Your task to perform on an android device: open a bookmark in the chrome app Image 0: 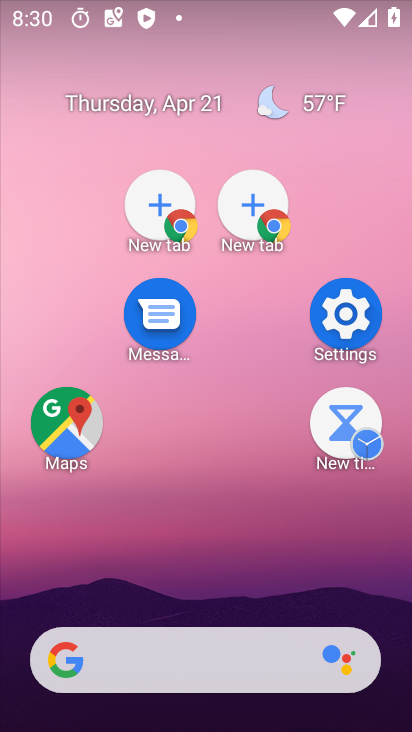
Step 0: drag from (287, 674) to (152, 298)
Your task to perform on an android device: open a bookmark in the chrome app Image 1: 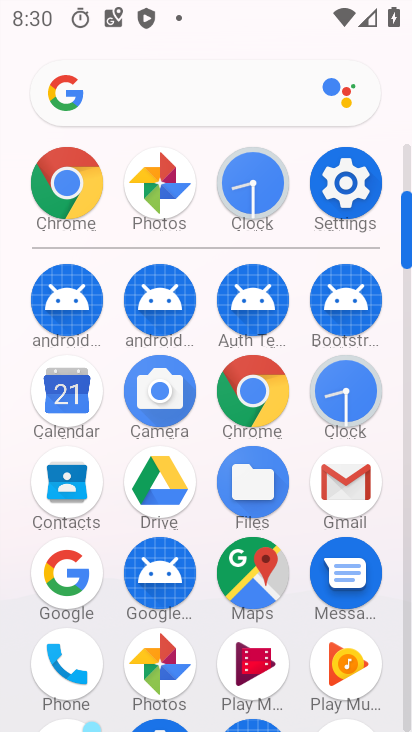
Step 1: click (69, 177)
Your task to perform on an android device: open a bookmark in the chrome app Image 2: 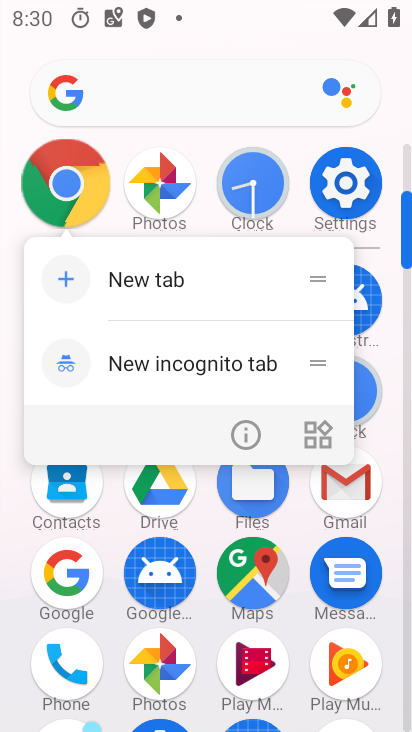
Step 2: click (74, 182)
Your task to perform on an android device: open a bookmark in the chrome app Image 3: 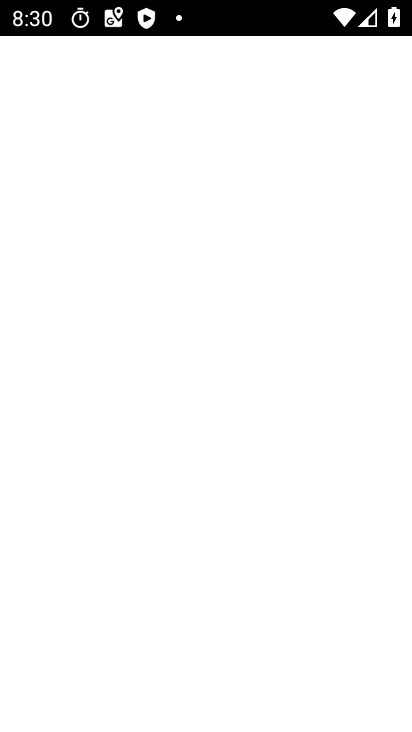
Step 3: click (78, 183)
Your task to perform on an android device: open a bookmark in the chrome app Image 4: 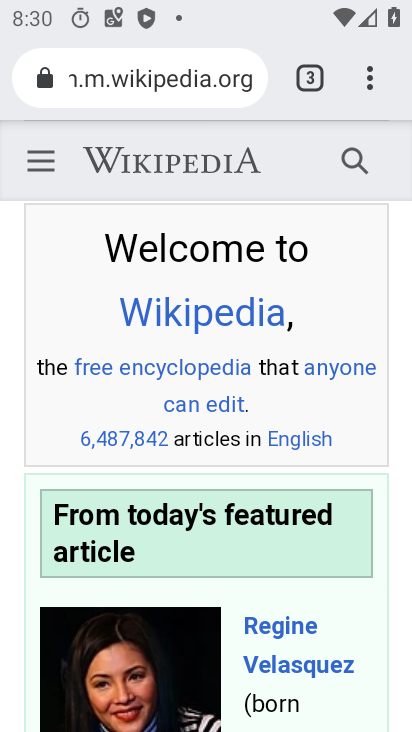
Step 4: click (371, 74)
Your task to perform on an android device: open a bookmark in the chrome app Image 5: 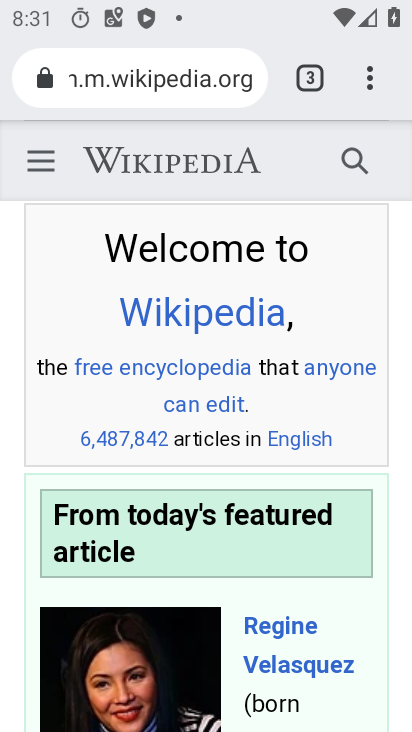
Step 5: drag from (369, 82) to (95, 389)
Your task to perform on an android device: open a bookmark in the chrome app Image 6: 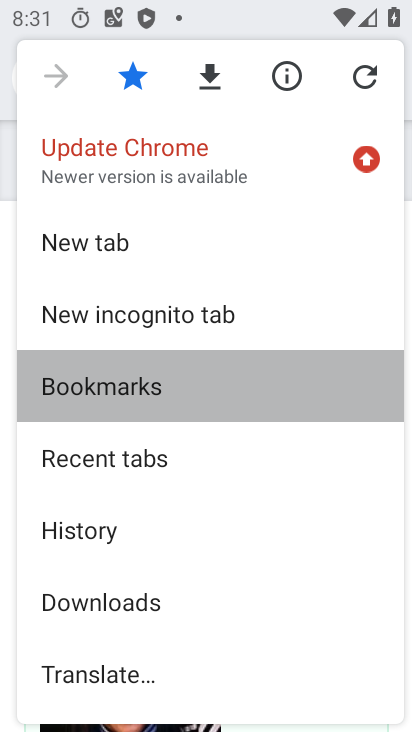
Step 6: click (95, 388)
Your task to perform on an android device: open a bookmark in the chrome app Image 7: 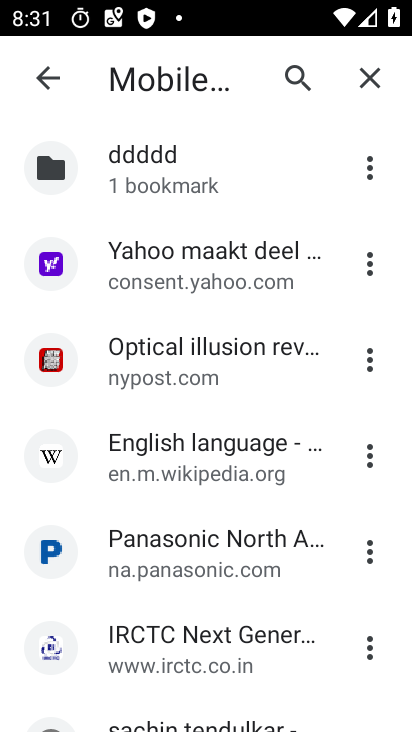
Step 7: task complete